Your task to perform on an android device: turn on javascript in the chrome app Image 0: 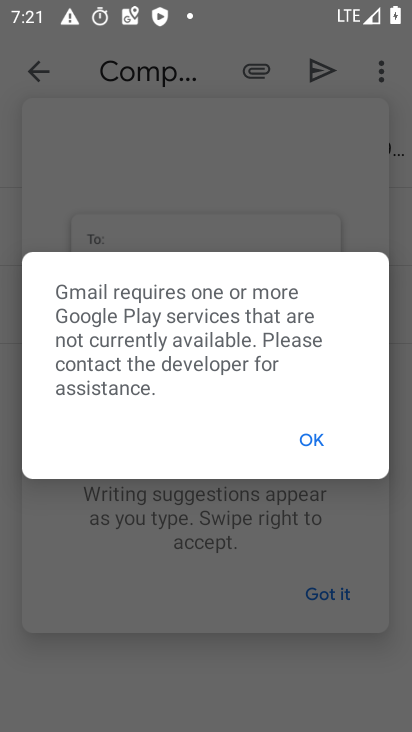
Step 0: press home button
Your task to perform on an android device: turn on javascript in the chrome app Image 1: 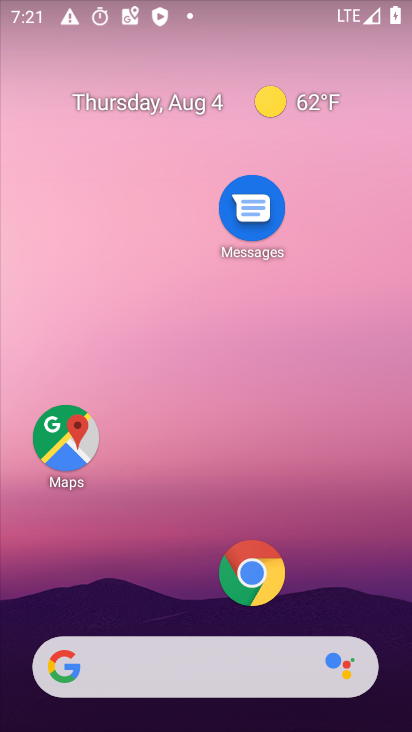
Step 1: drag from (190, 595) to (111, 150)
Your task to perform on an android device: turn on javascript in the chrome app Image 2: 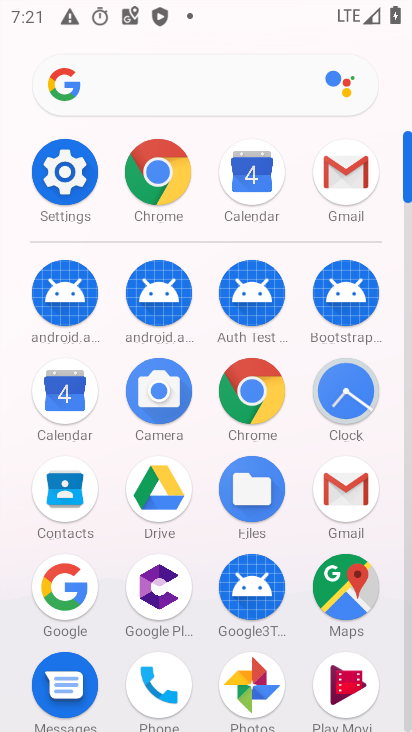
Step 2: click (157, 180)
Your task to perform on an android device: turn on javascript in the chrome app Image 3: 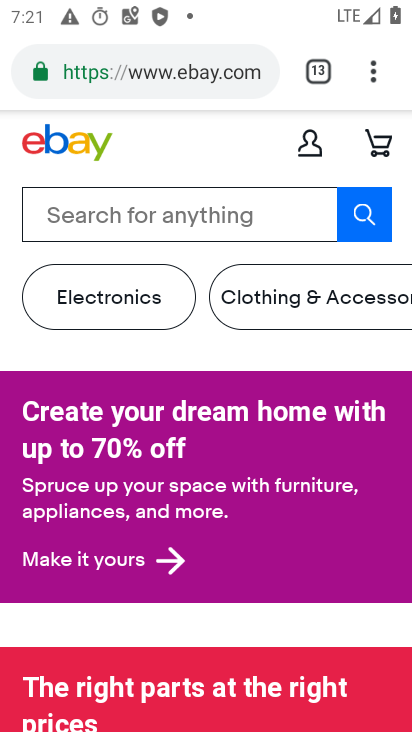
Step 3: drag from (378, 62) to (159, 576)
Your task to perform on an android device: turn on javascript in the chrome app Image 4: 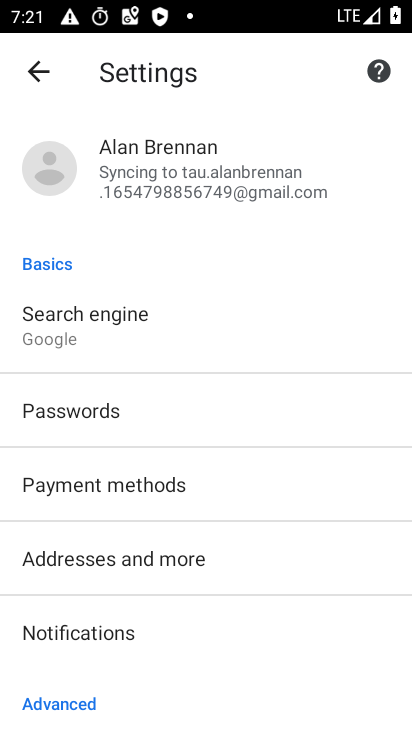
Step 4: drag from (250, 662) to (125, 300)
Your task to perform on an android device: turn on javascript in the chrome app Image 5: 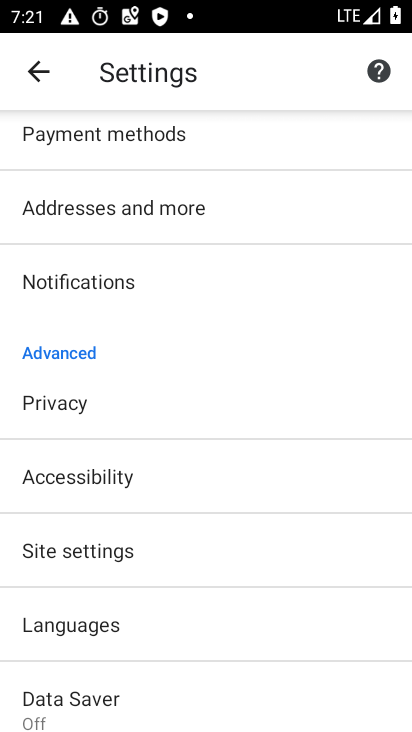
Step 5: click (103, 550)
Your task to perform on an android device: turn on javascript in the chrome app Image 6: 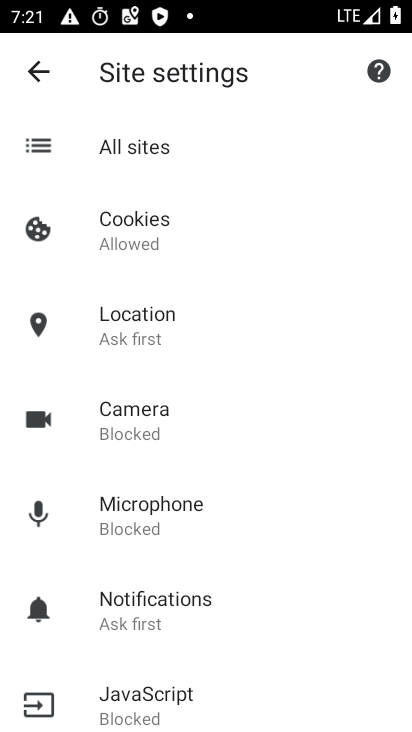
Step 6: click (153, 705)
Your task to perform on an android device: turn on javascript in the chrome app Image 7: 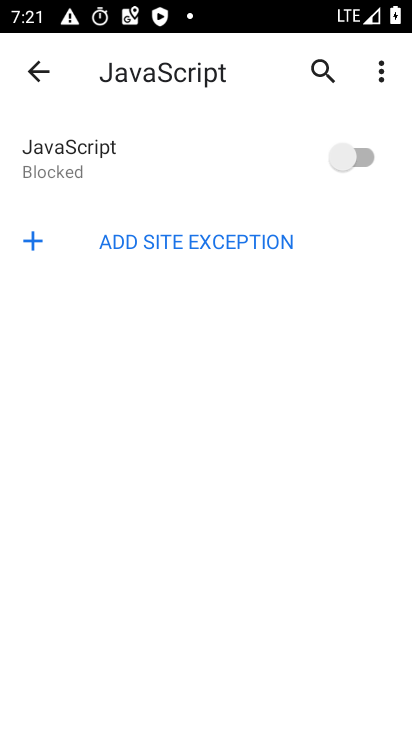
Step 7: click (336, 162)
Your task to perform on an android device: turn on javascript in the chrome app Image 8: 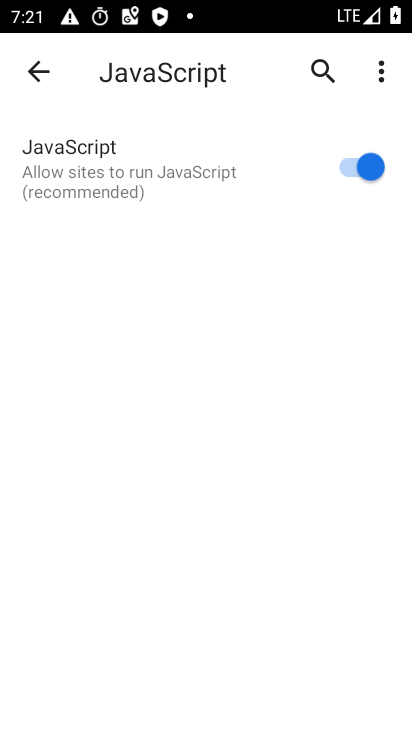
Step 8: task complete